Your task to perform on an android device: read, delete, or share a saved page in the chrome app Image 0: 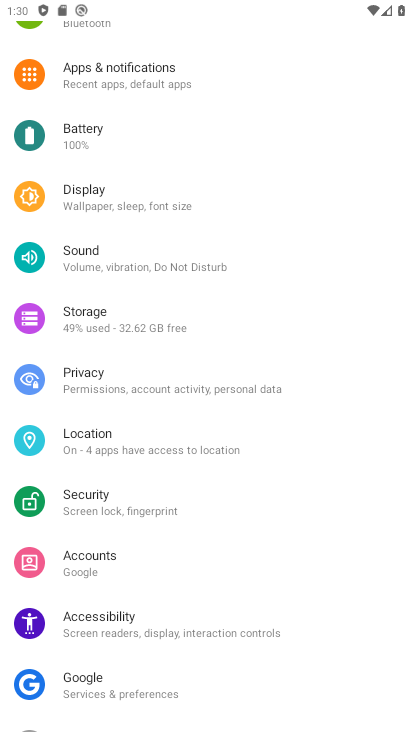
Step 0: press home button
Your task to perform on an android device: read, delete, or share a saved page in the chrome app Image 1: 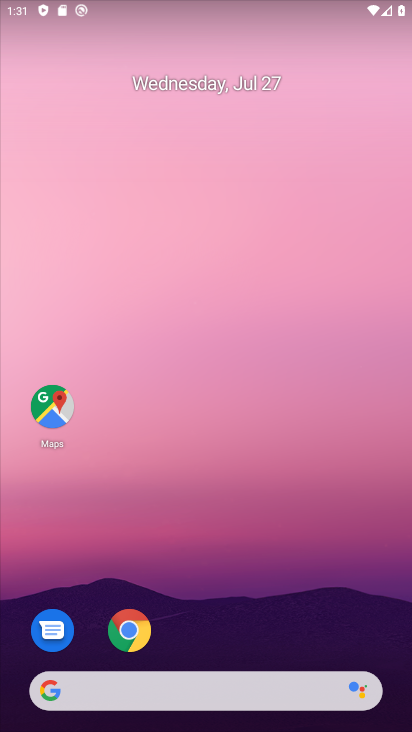
Step 1: click (128, 631)
Your task to perform on an android device: read, delete, or share a saved page in the chrome app Image 2: 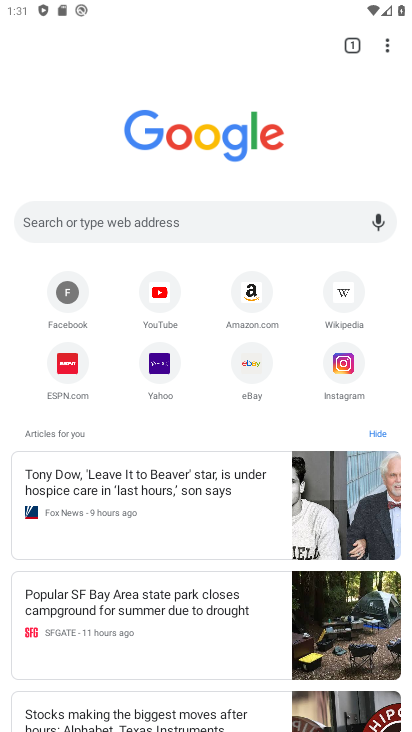
Step 2: click (386, 49)
Your task to perform on an android device: read, delete, or share a saved page in the chrome app Image 3: 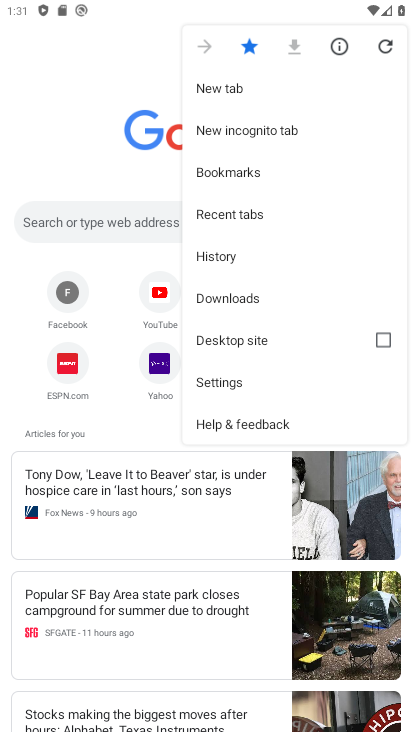
Step 3: click (228, 297)
Your task to perform on an android device: read, delete, or share a saved page in the chrome app Image 4: 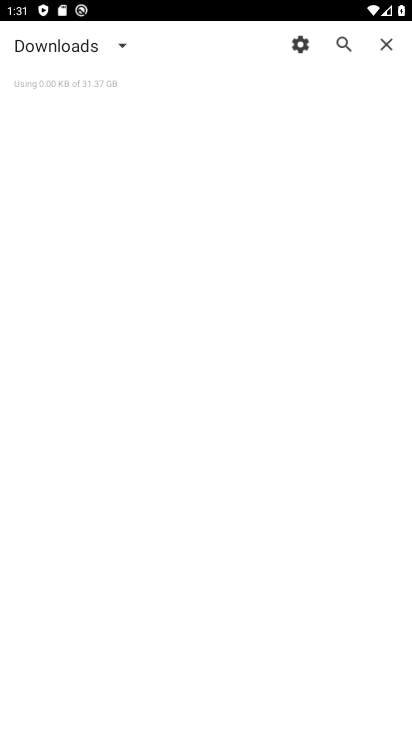
Step 4: click (124, 47)
Your task to perform on an android device: read, delete, or share a saved page in the chrome app Image 5: 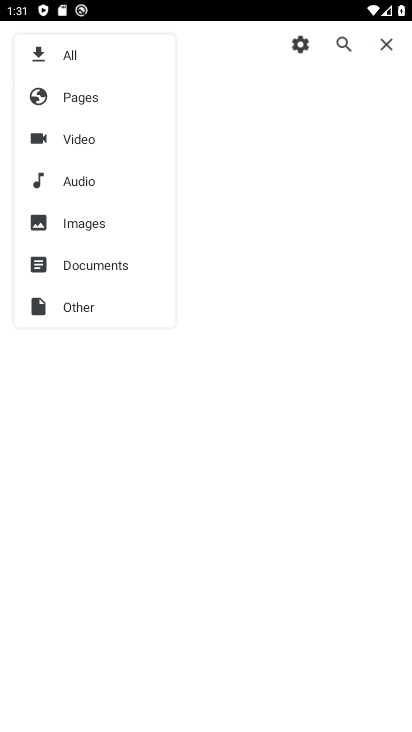
Step 5: click (75, 96)
Your task to perform on an android device: read, delete, or share a saved page in the chrome app Image 6: 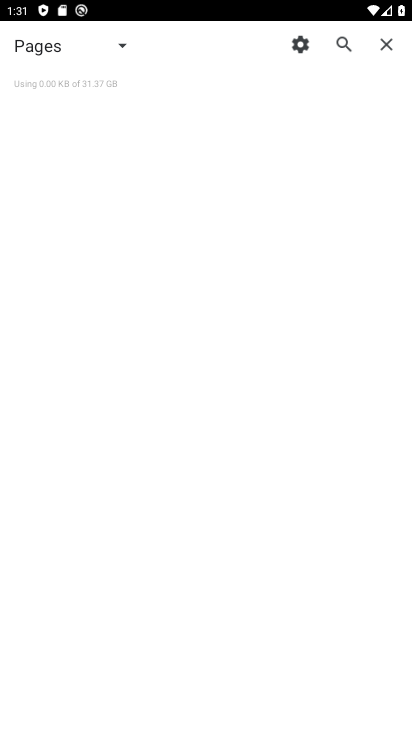
Step 6: task complete